Your task to perform on an android device: install app "Google Calendar" Image 0: 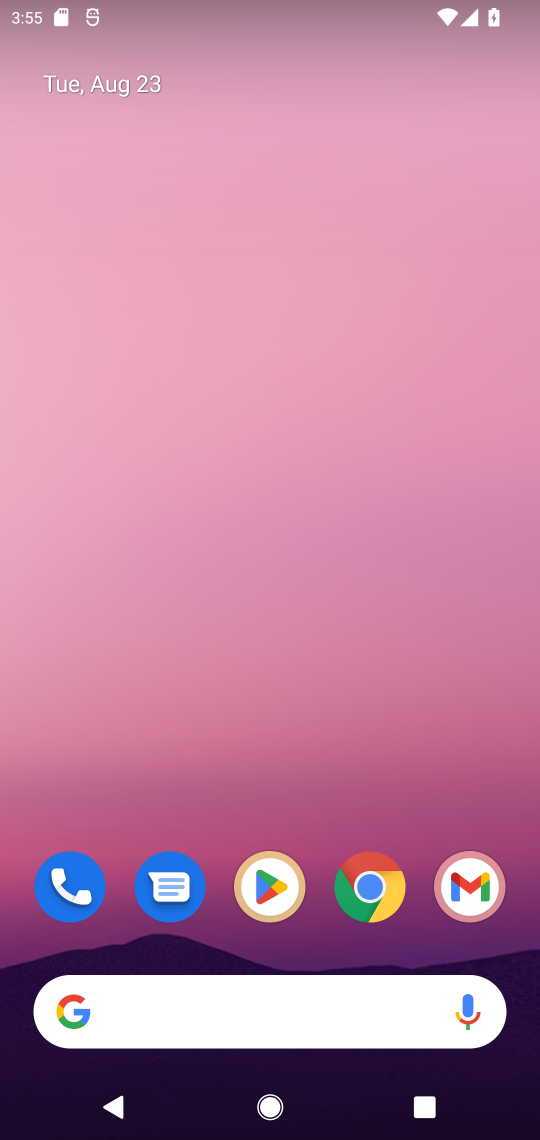
Step 0: click (258, 894)
Your task to perform on an android device: install app "Google Calendar" Image 1: 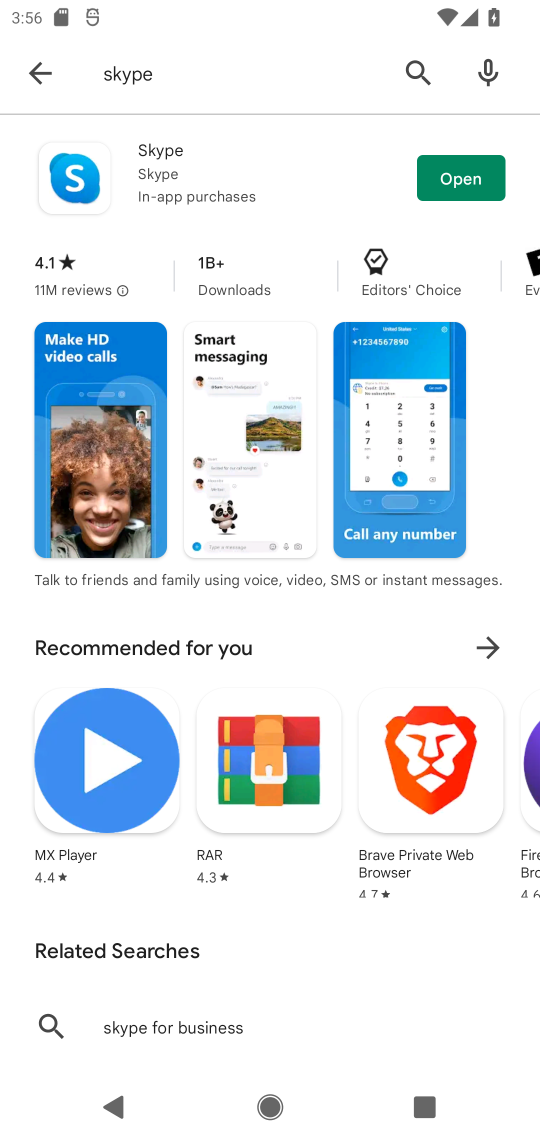
Step 1: click (39, 78)
Your task to perform on an android device: install app "Google Calendar" Image 2: 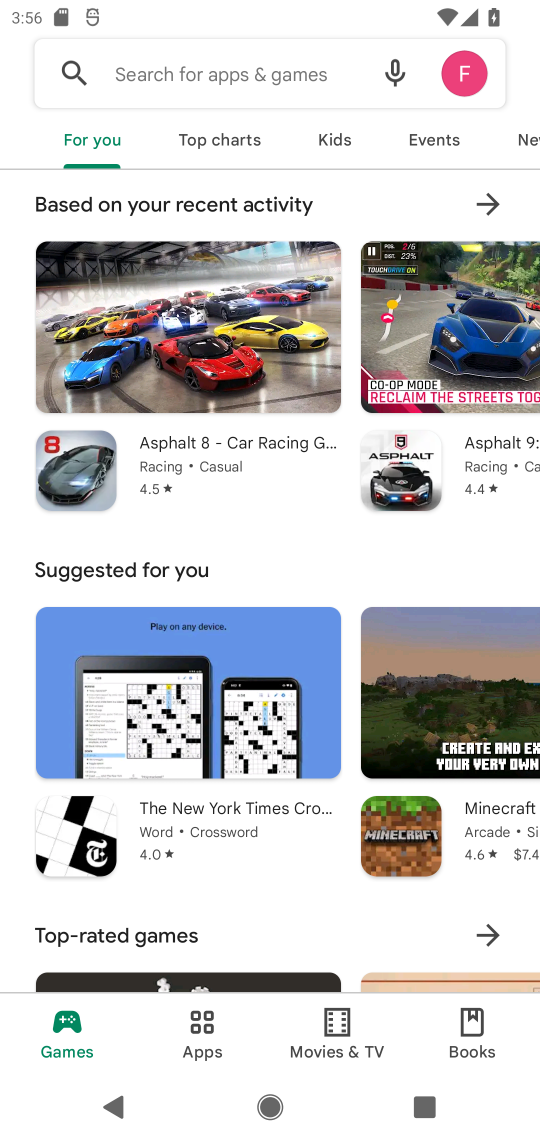
Step 2: click (249, 87)
Your task to perform on an android device: install app "Google Calendar" Image 3: 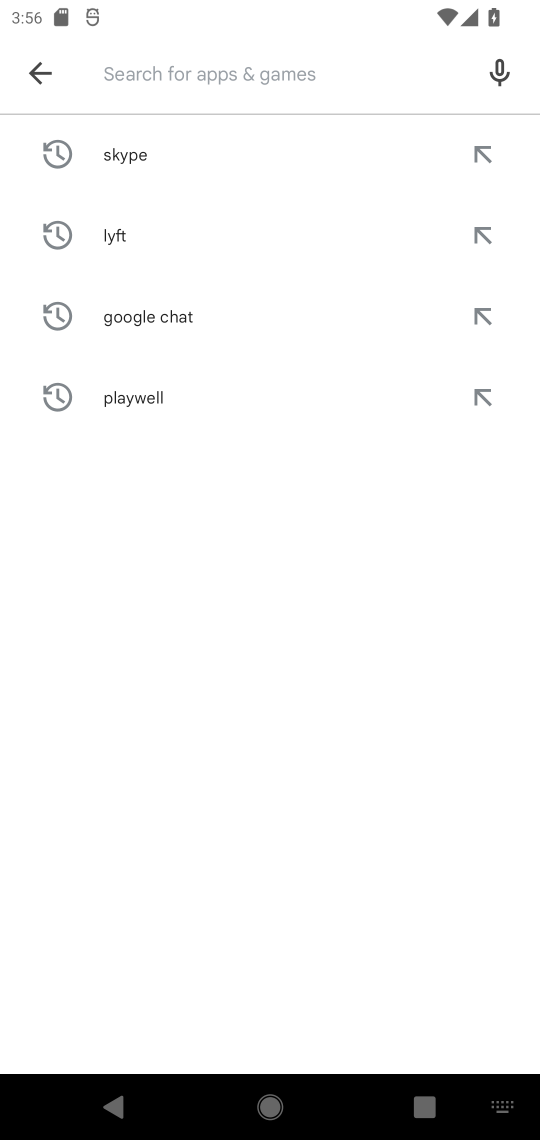
Step 3: type "Google Calendar"
Your task to perform on an android device: install app "Google Calendar" Image 4: 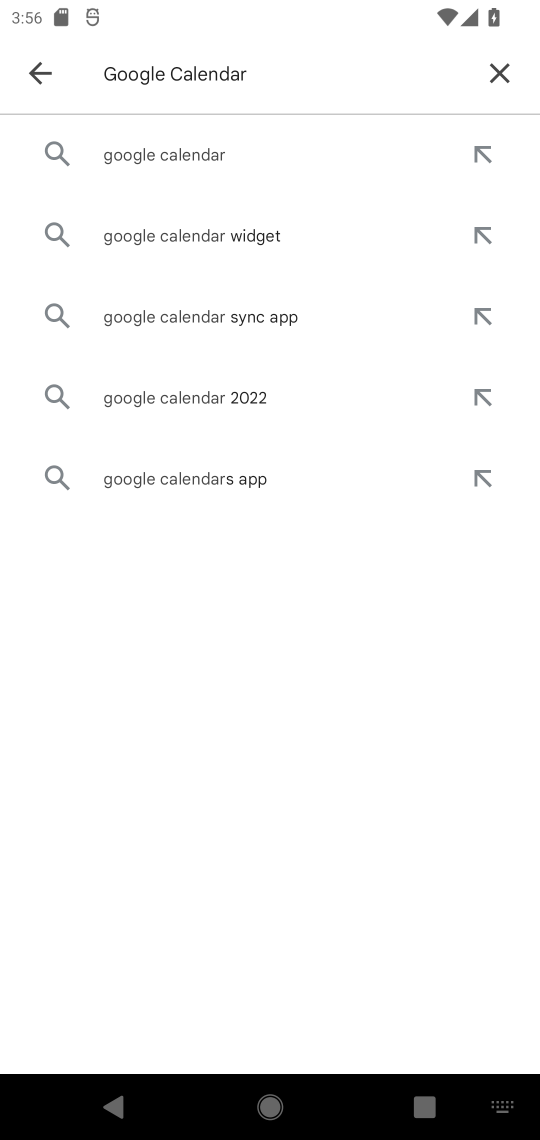
Step 4: click (148, 156)
Your task to perform on an android device: install app "Google Calendar" Image 5: 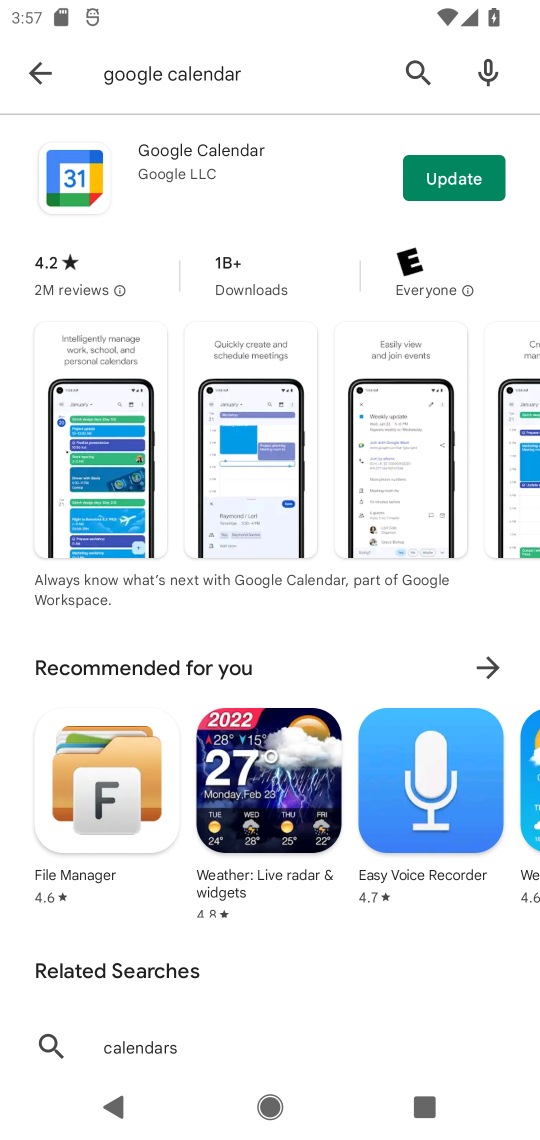
Step 5: task complete